Your task to perform on an android device: turn off sleep mode Image 0: 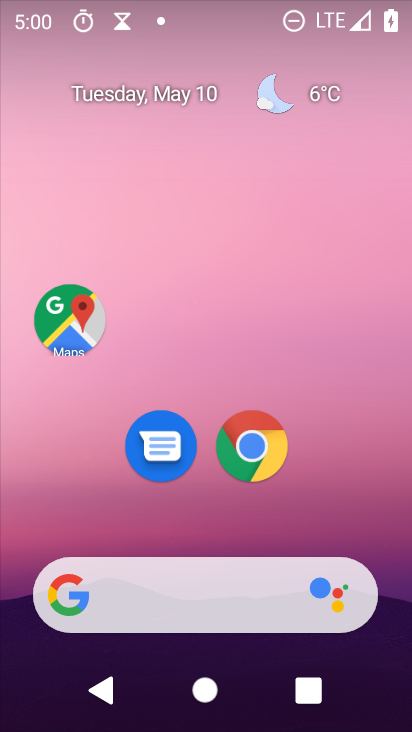
Step 0: drag from (244, 519) to (176, 63)
Your task to perform on an android device: turn off sleep mode Image 1: 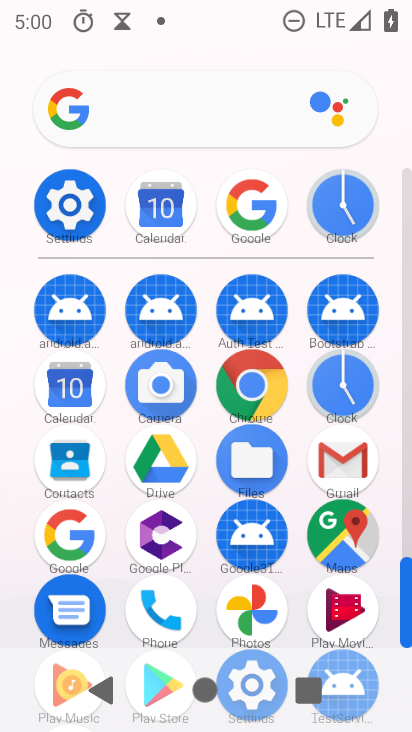
Step 1: click (85, 198)
Your task to perform on an android device: turn off sleep mode Image 2: 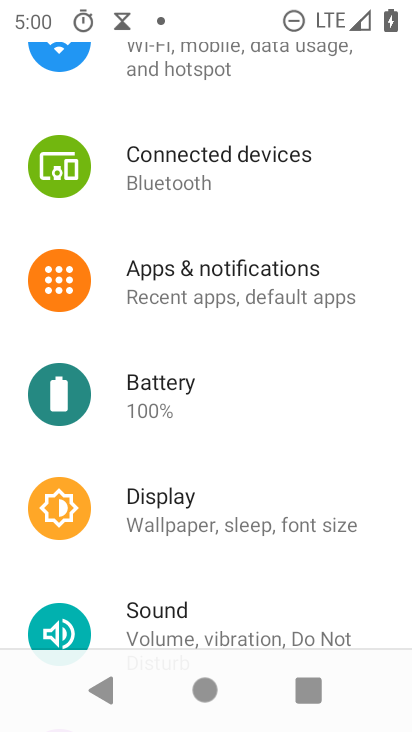
Step 2: click (195, 496)
Your task to perform on an android device: turn off sleep mode Image 3: 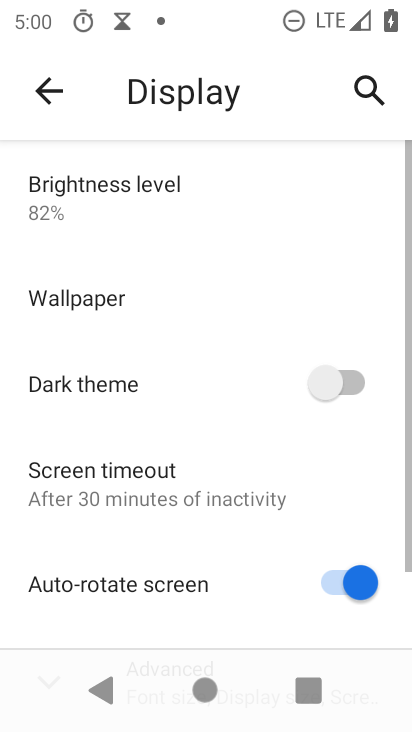
Step 3: task complete